Your task to perform on an android device: clear history in the chrome app Image 0: 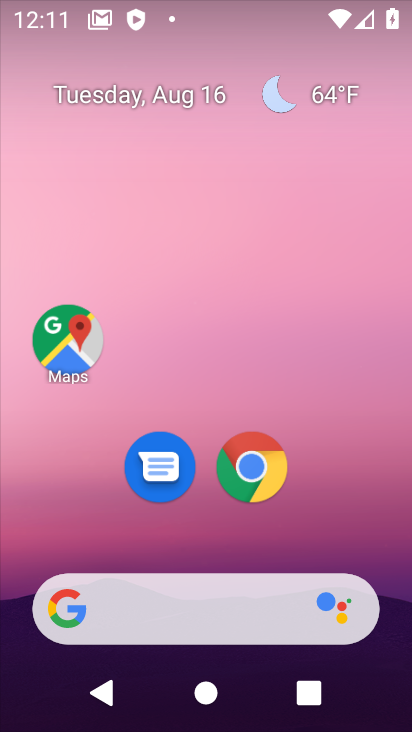
Step 0: press home button
Your task to perform on an android device: clear history in the chrome app Image 1: 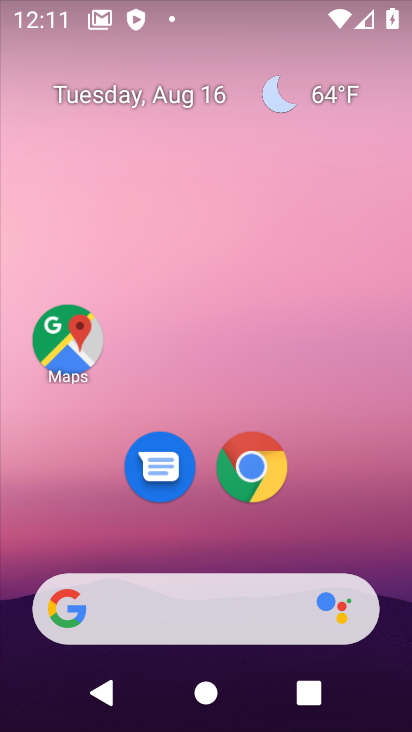
Step 1: drag from (365, 519) to (353, 139)
Your task to perform on an android device: clear history in the chrome app Image 2: 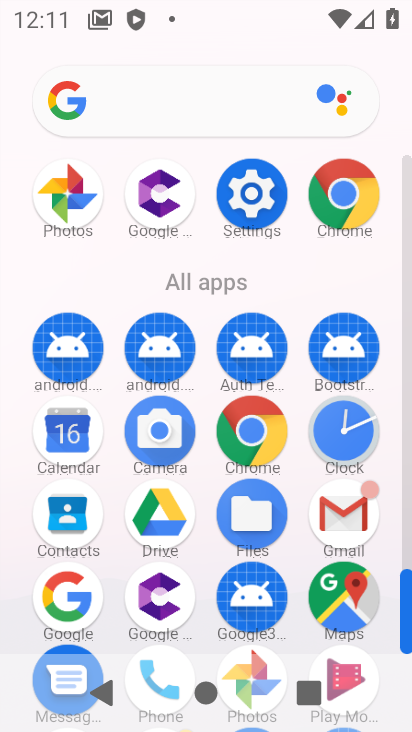
Step 2: click (341, 201)
Your task to perform on an android device: clear history in the chrome app Image 3: 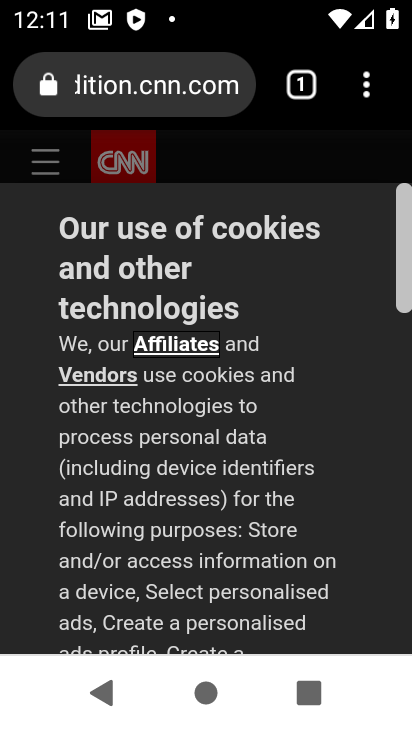
Step 3: click (368, 86)
Your task to perform on an android device: clear history in the chrome app Image 4: 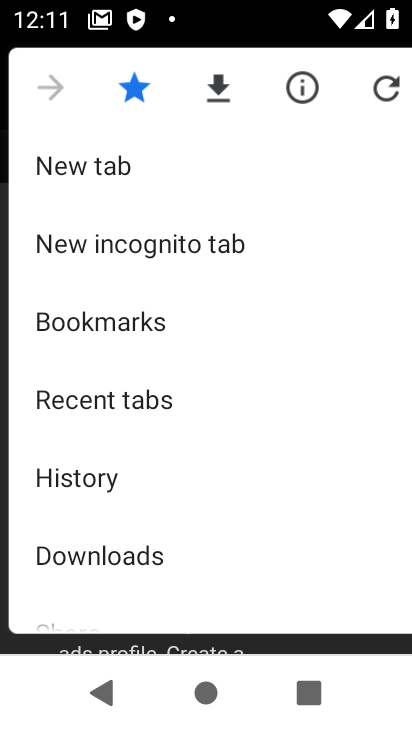
Step 4: click (161, 473)
Your task to perform on an android device: clear history in the chrome app Image 5: 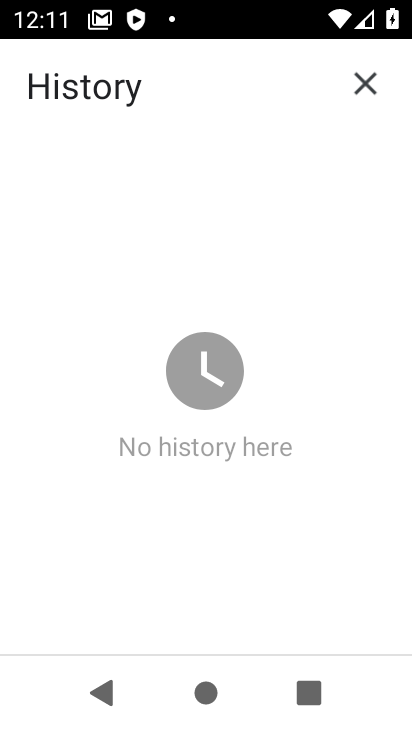
Step 5: task complete